Your task to perform on an android device: Open the phone app and click the voicemail tab. Image 0: 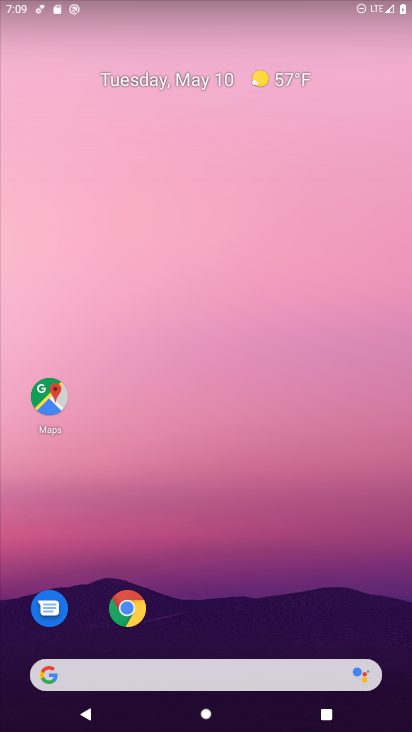
Step 0: drag from (292, 615) to (223, 38)
Your task to perform on an android device: Open the phone app and click the voicemail tab. Image 1: 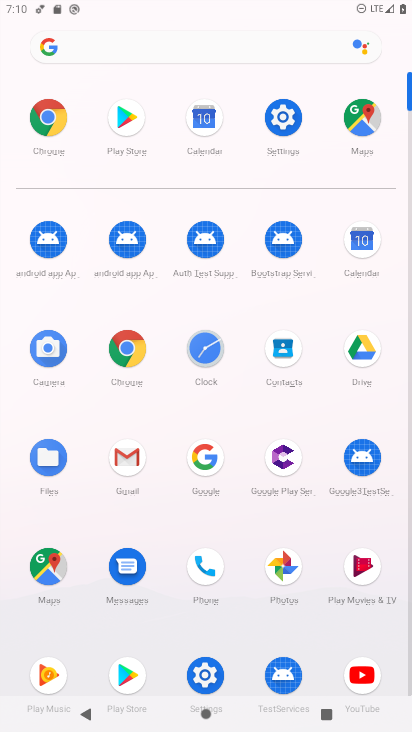
Step 1: click (208, 580)
Your task to perform on an android device: Open the phone app and click the voicemail tab. Image 2: 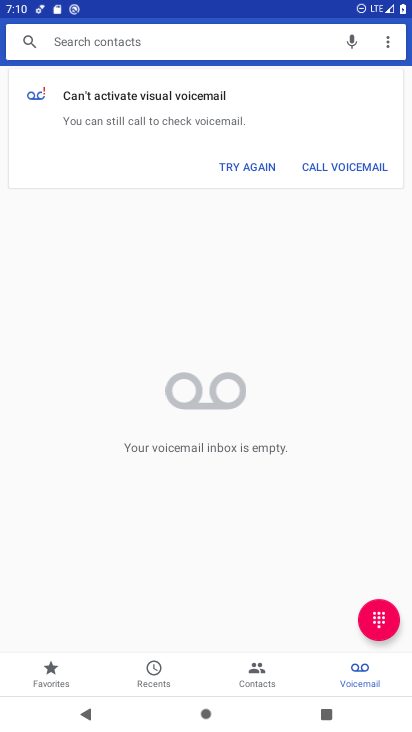
Step 2: task complete